Your task to perform on an android device: Go to notification settings Image 0: 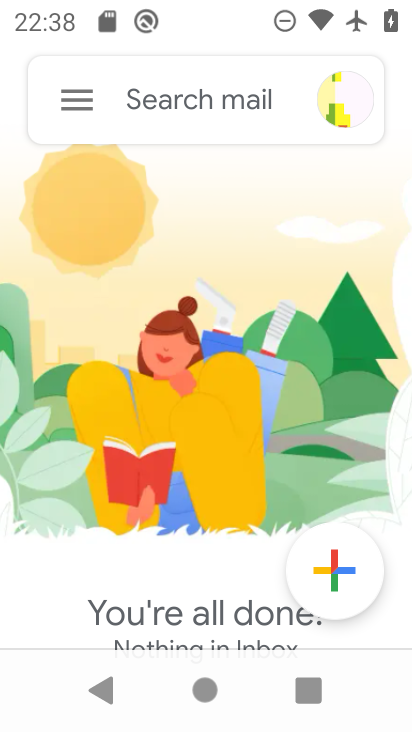
Step 0: press home button
Your task to perform on an android device: Go to notification settings Image 1: 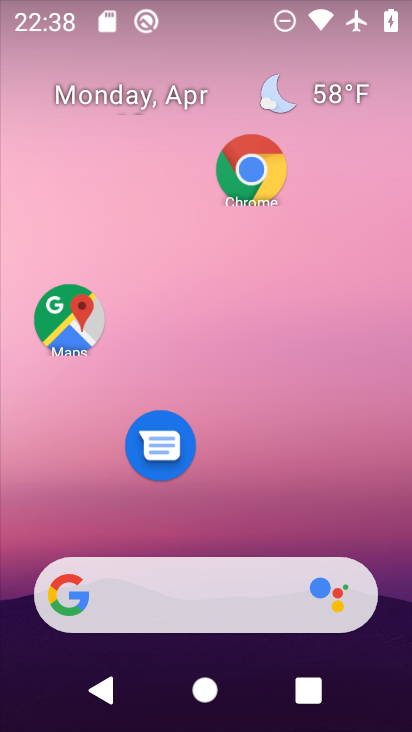
Step 1: drag from (219, 512) to (198, 53)
Your task to perform on an android device: Go to notification settings Image 2: 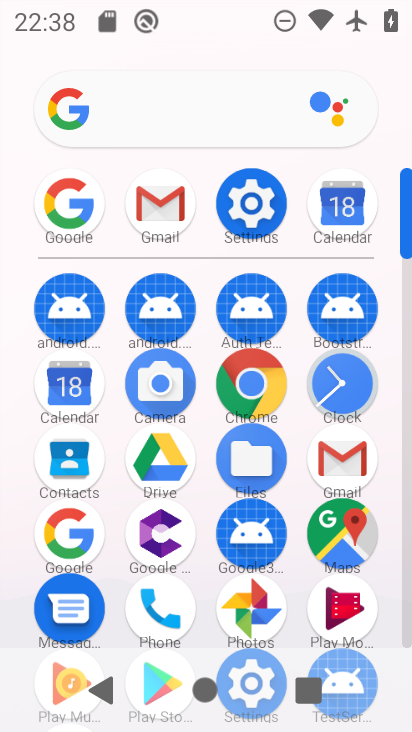
Step 2: click (244, 180)
Your task to perform on an android device: Go to notification settings Image 3: 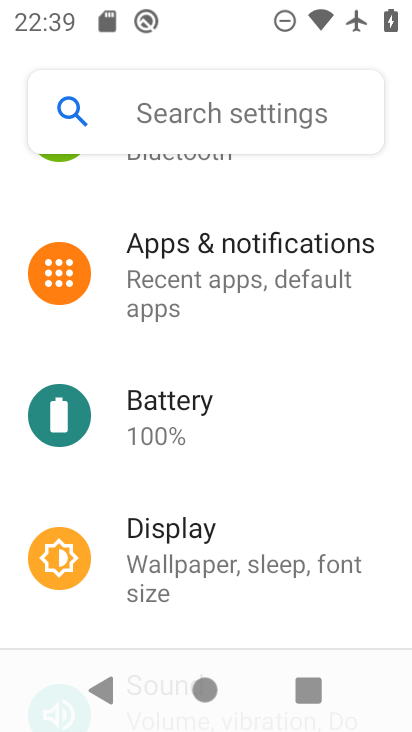
Step 3: click (221, 265)
Your task to perform on an android device: Go to notification settings Image 4: 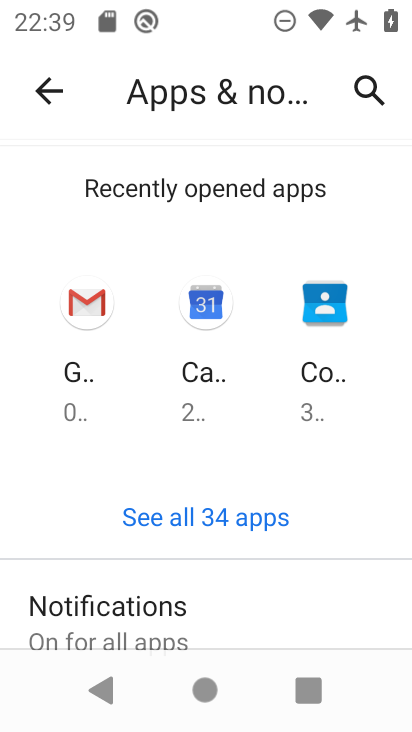
Step 4: click (159, 606)
Your task to perform on an android device: Go to notification settings Image 5: 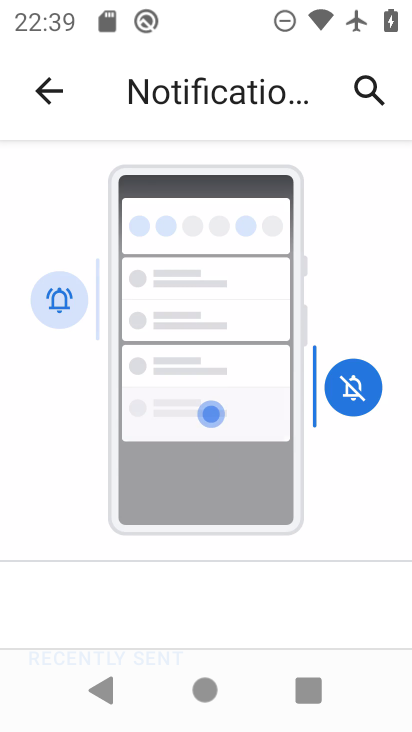
Step 5: task complete